Your task to perform on an android device: Open calendar and show me the fourth week of next month Image 0: 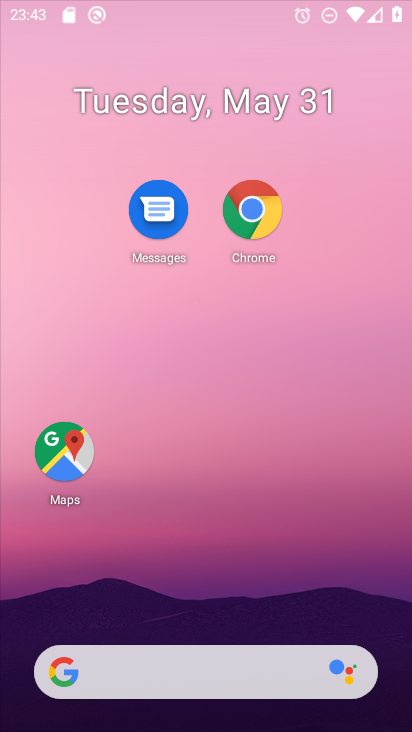
Step 0: press home button
Your task to perform on an android device: Open calendar and show me the fourth week of next month Image 1: 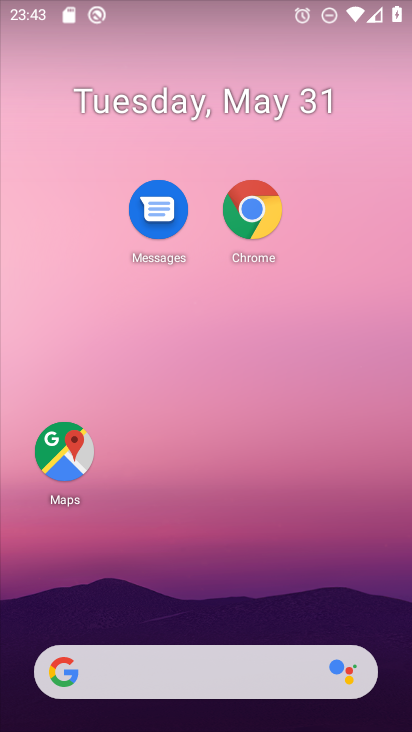
Step 1: drag from (216, 623) to (240, 107)
Your task to perform on an android device: Open calendar and show me the fourth week of next month Image 2: 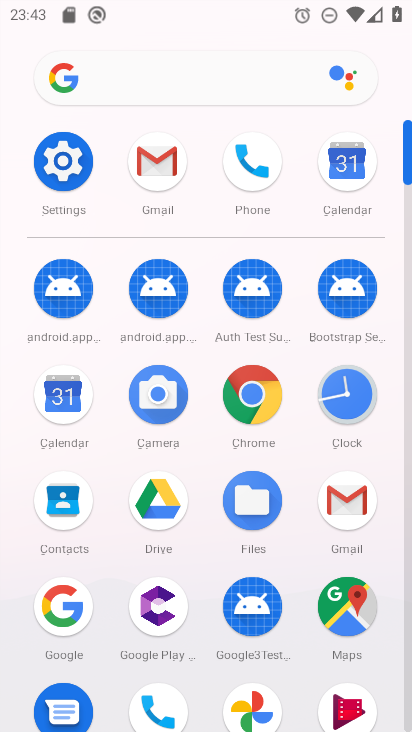
Step 2: click (62, 391)
Your task to perform on an android device: Open calendar and show me the fourth week of next month Image 3: 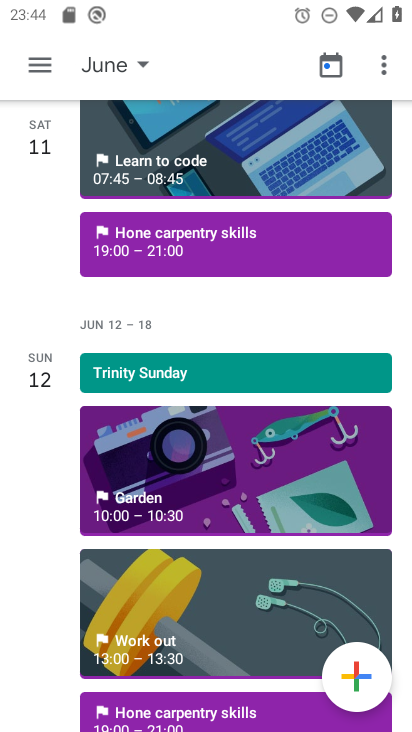
Step 3: click (141, 62)
Your task to perform on an android device: Open calendar and show me the fourth week of next month Image 4: 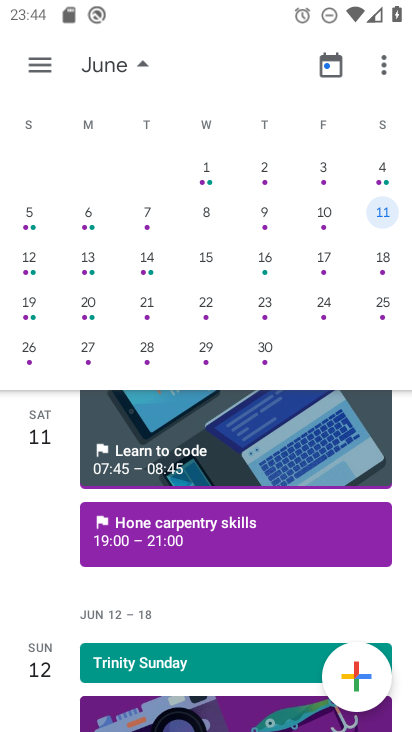
Step 4: click (27, 302)
Your task to perform on an android device: Open calendar and show me the fourth week of next month Image 5: 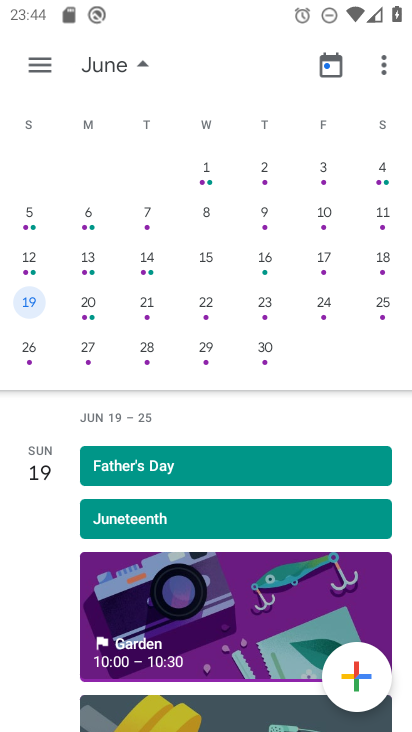
Step 5: click (141, 55)
Your task to perform on an android device: Open calendar and show me the fourth week of next month Image 6: 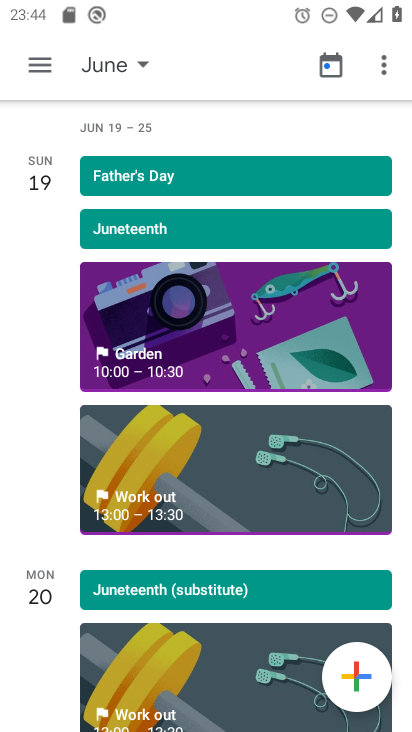
Step 6: task complete